Your task to perform on an android device: turn on location history Image 0: 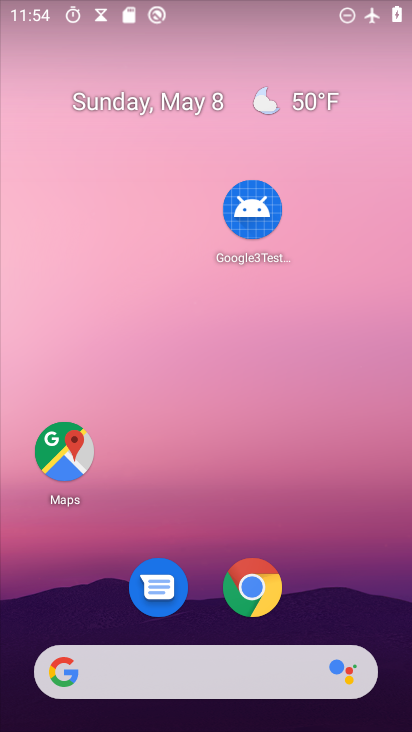
Step 0: drag from (302, 503) to (103, 162)
Your task to perform on an android device: turn on location history Image 1: 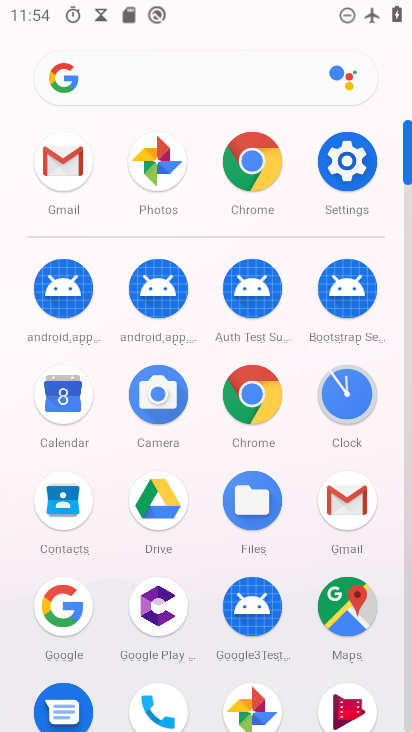
Step 1: click (349, 158)
Your task to perform on an android device: turn on location history Image 2: 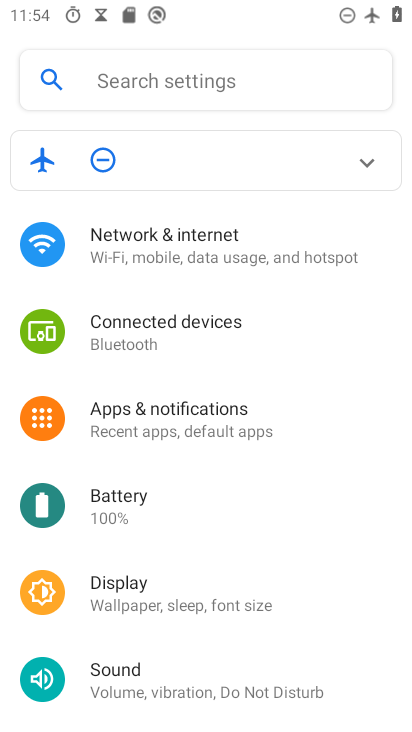
Step 2: drag from (193, 665) to (229, 321)
Your task to perform on an android device: turn on location history Image 3: 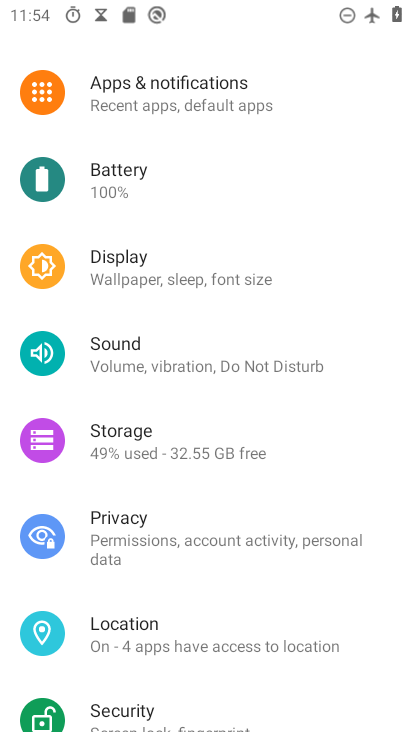
Step 3: click (161, 632)
Your task to perform on an android device: turn on location history Image 4: 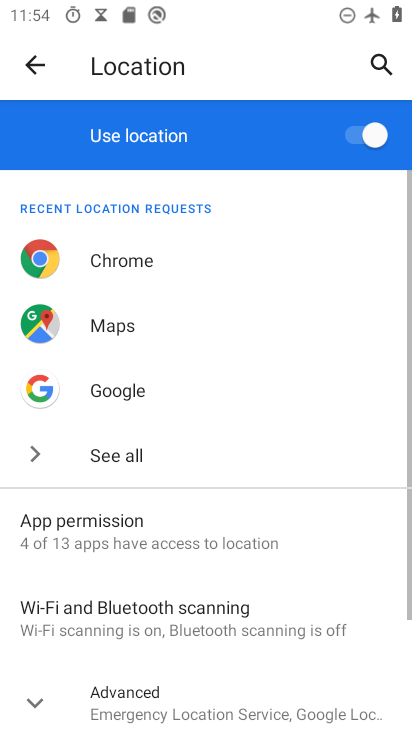
Step 4: click (193, 712)
Your task to perform on an android device: turn on location history Image 5: 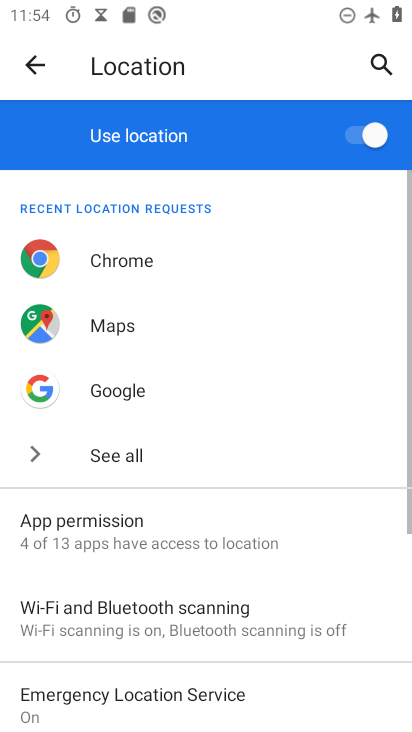
Step 5: drag from (193, 663) to (193, 141)
Your task to perform on an android device: turn on location history Image 6: 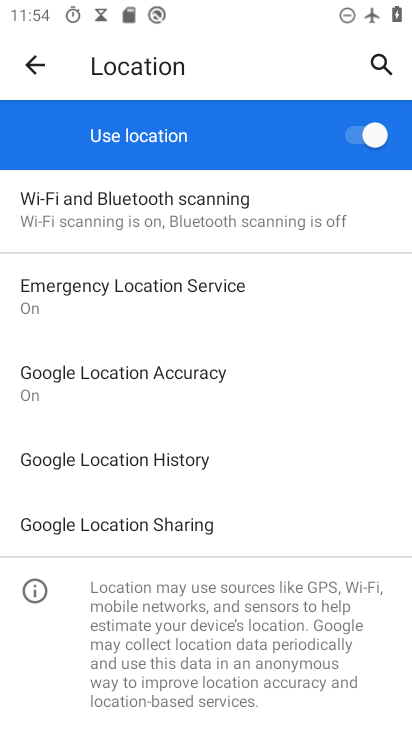
Step 6: click (128, 463)
Your task to perform on an android device: turn on location history Image 7: 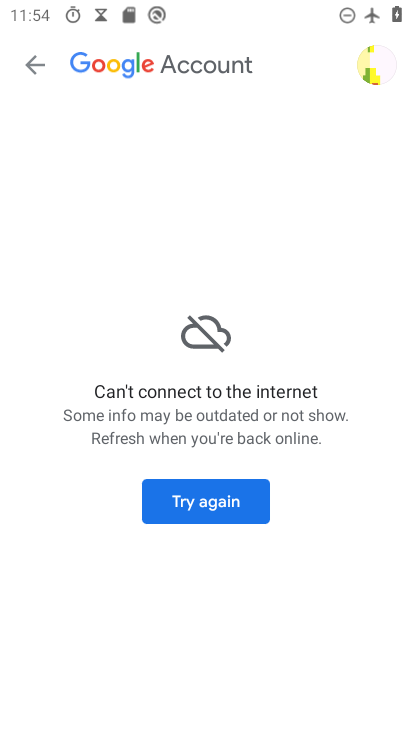
Step 7: click (191, 498)
Your task to perform on an android device: turn on location history Image 8: 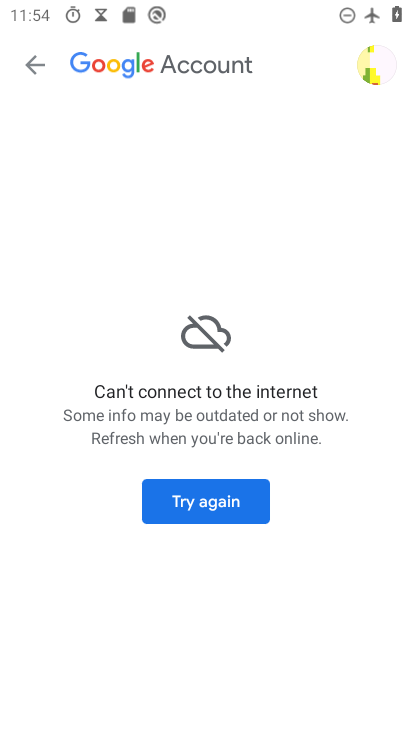
Step 8: task complete